Your task to perform on an android device: turn on the 12-hour format for clock Image 0: 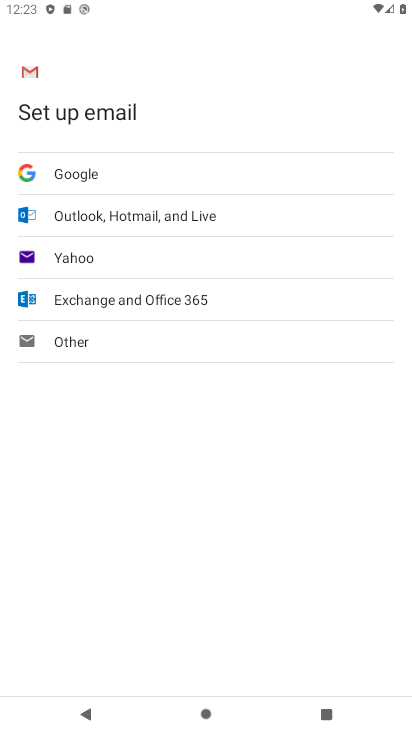
Step 0: press home button
Your task to perform on an android device: turn on the 12-hour format for clock Image 1: 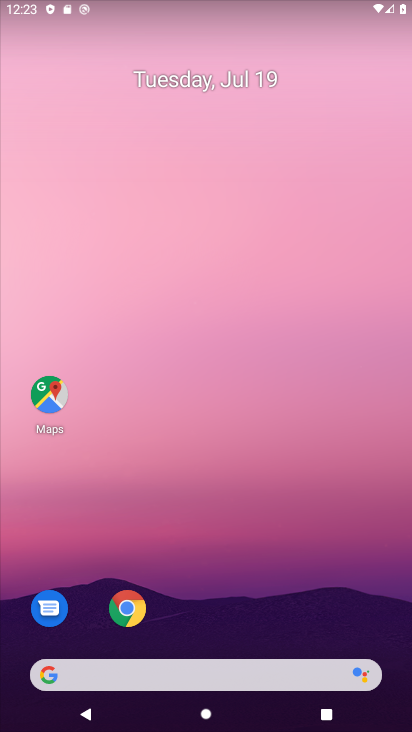
Step 1: drag from (279, 486) to (261, 157)
Your task to perform on an android device: turn on the 12-hour format for clock Image 2: 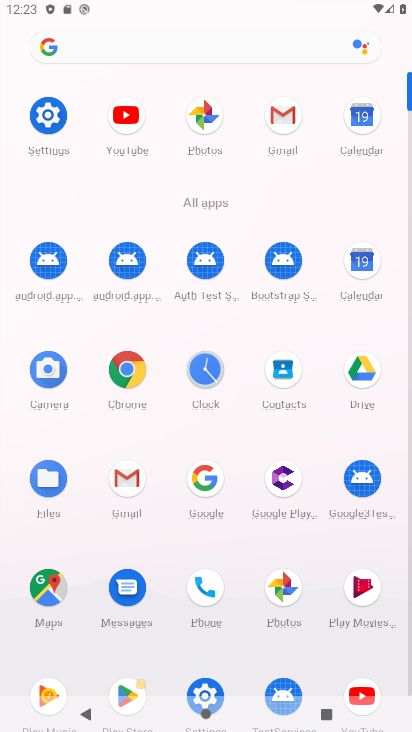
Step 2: click (196, 376)
Your task to perform on an android device: turn on the 12-hour format for clock Image 3: 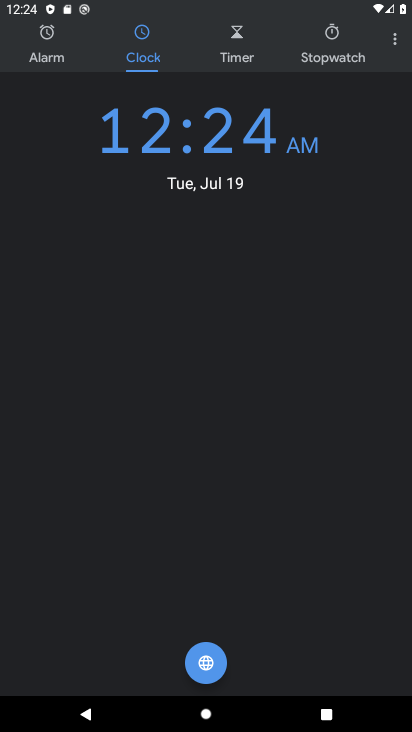
Step 3: click (391, 39)
Your task to perform on an android device: turn on the 12-hour format for clock Image 4: 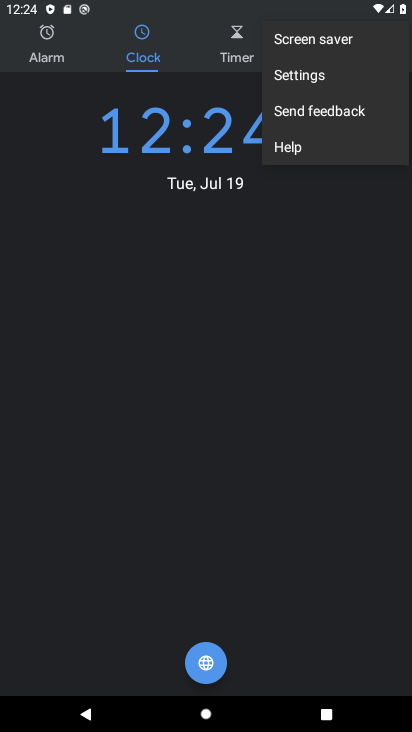
Step 4: click (326, 78)
Your task to perform on an android device: turn on the 12-hour format for clock Image 5: 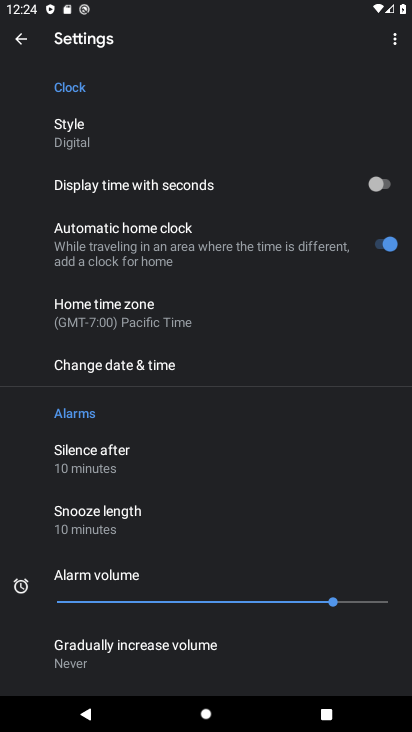
Step 5: task complete